Your task to perform on an android device: What's the weather like in Sydney? Image 0: 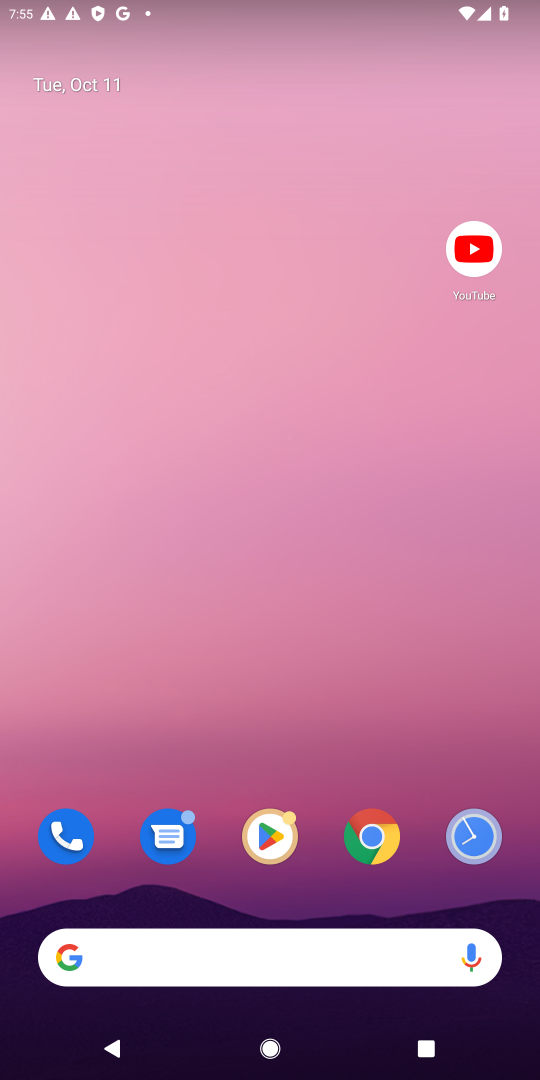
Step 0: click (375, 836)
Your task to perform on an android device: What's the weather like in Sydney? Image 1: 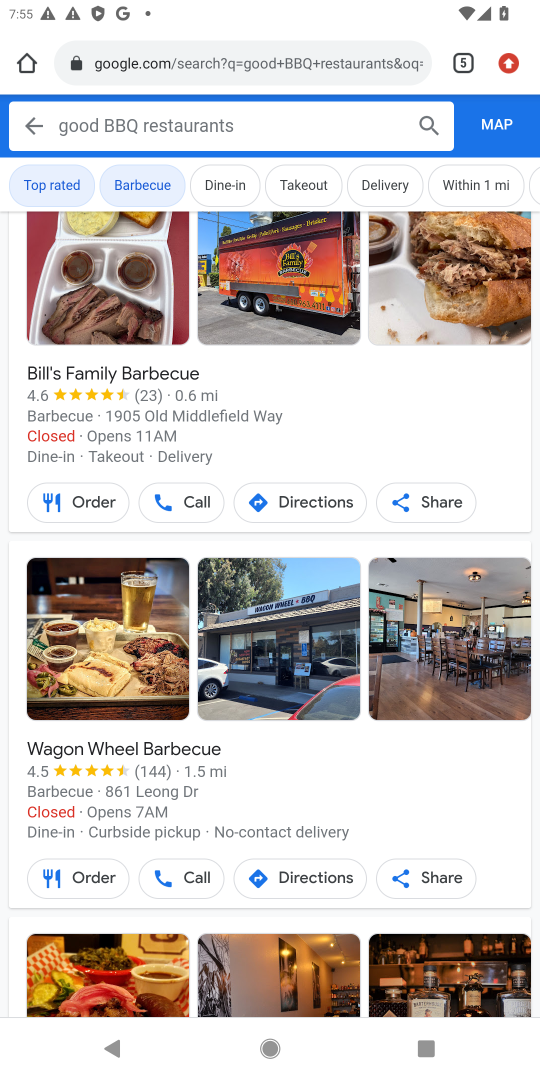
Step 1: click (304, 64)
Your task to perform on an android device: What's the weather like in Sydney? Image 2: 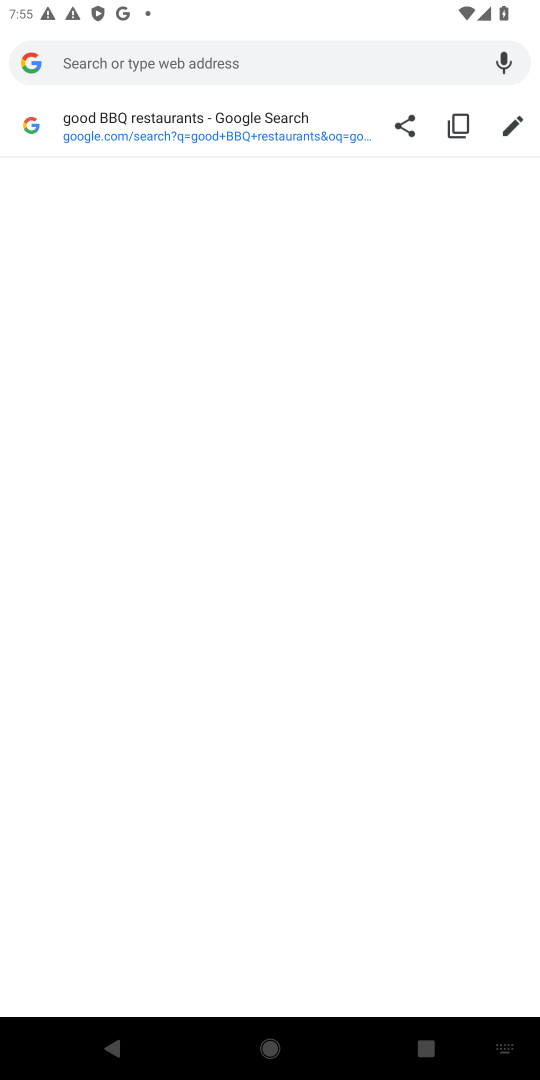
Step 2: type " weather like in Sydney"
Your task to perform on an android device: What's the weather like in Sydney? Image 3: 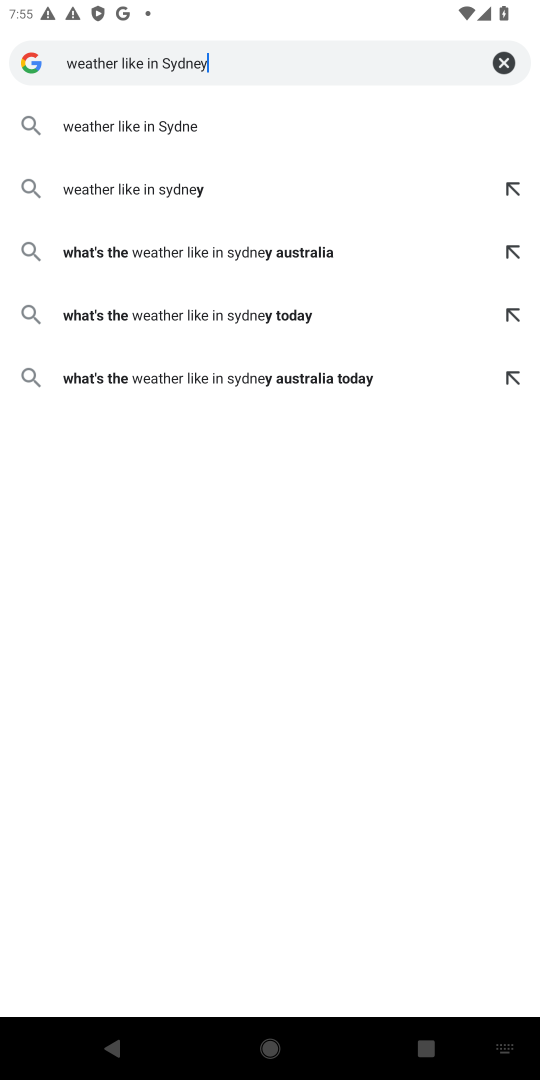
Step 3: press enter
Your task to perform on an android device: What's the weather like in Sydney? Image 4: 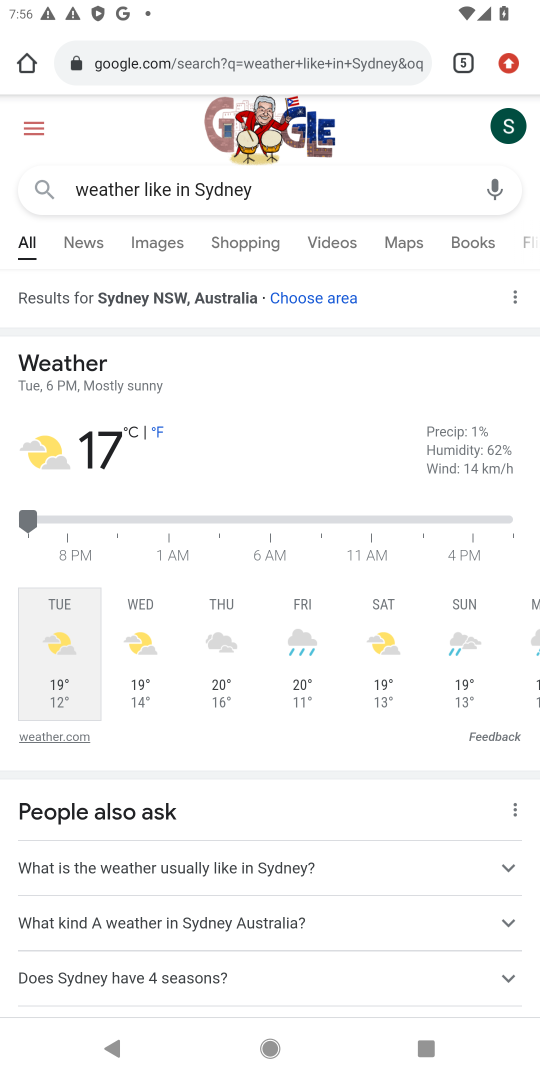
Step 4: task complete